Your task to perform on an android device: Search for razer blackwidow on walmart.com, select the first entry, and add it to the cart. Image 0: 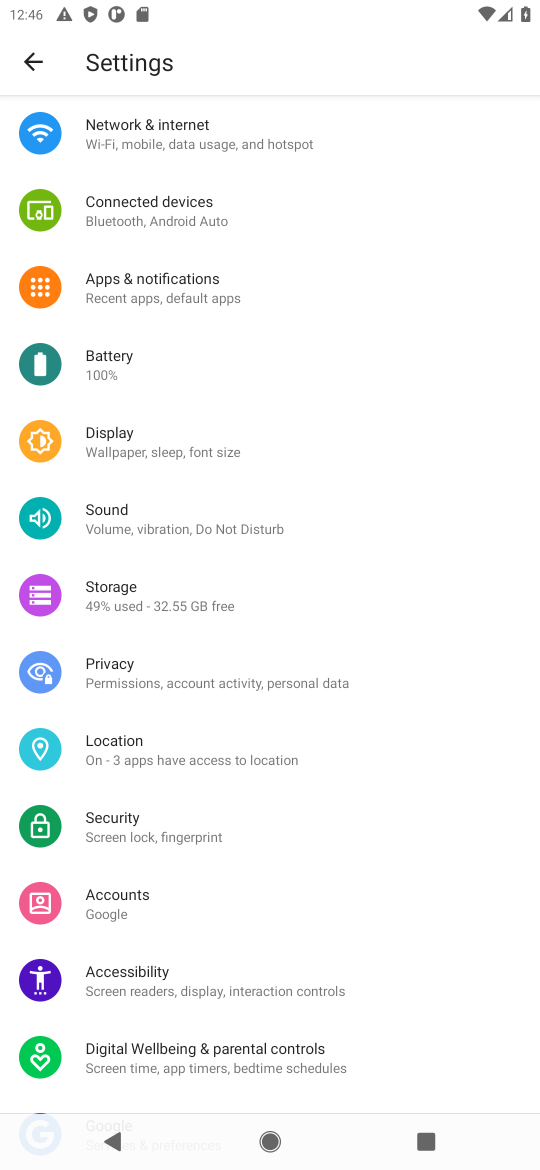
Step 0: click (281, 1136)
Your task to perform on an android device: Search for razer blackwidow on walmart.com, select the first entry, and add it to the cart. Image 1: 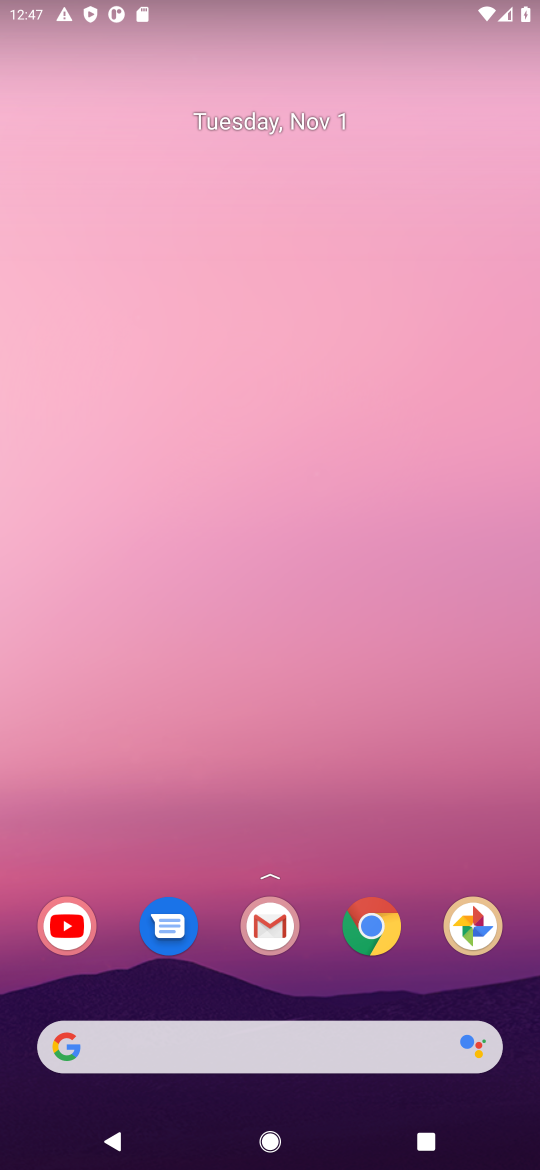
Step 1: click (369, 943)
Your task to perform on an android device: Search for razer blackwidow on walmart.com, select the first entry, and add it to the cart. Image 2: 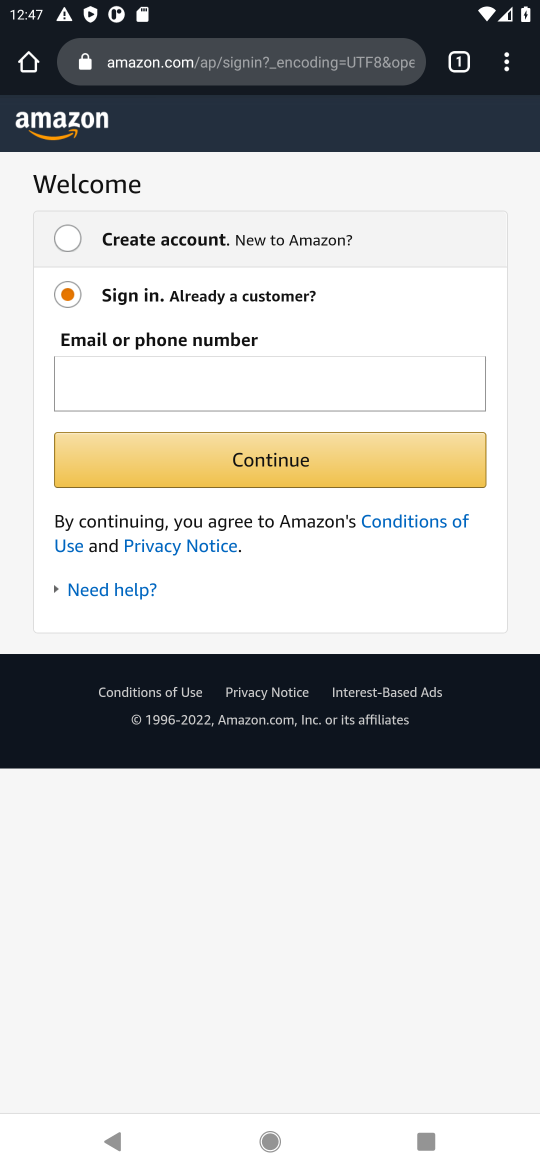
Step 2: click (260, 68)
Your task to perform on an android device: Search for razer blackwidow on walmart.com, select the first entry, and add it to the cart. Image 3: 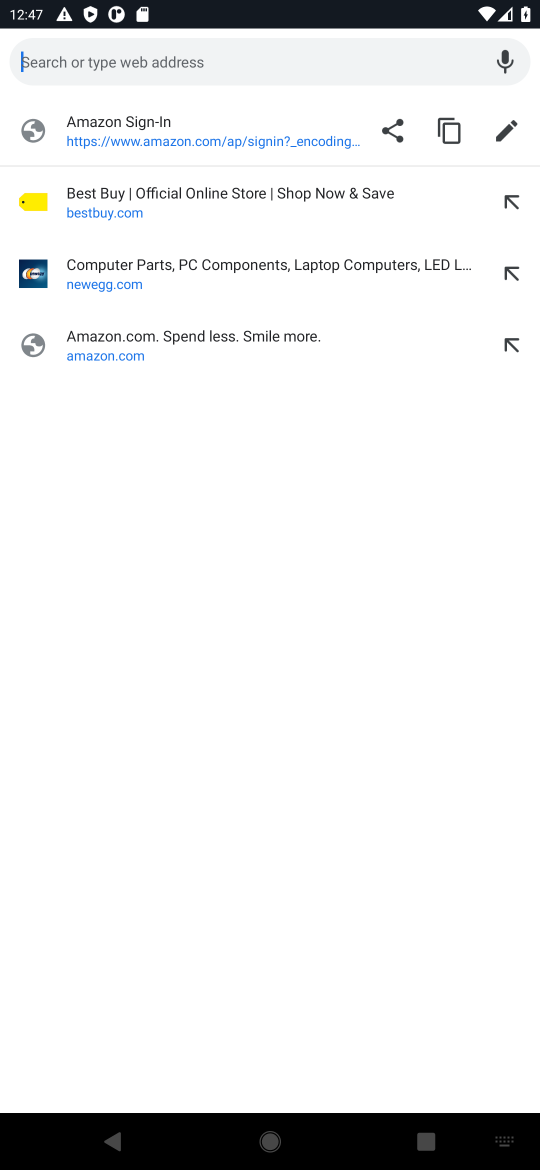
Step 3: type "walmart"
Your task to perform on an android device: Search for razer blackwidow on walmart.com, select the first entry, and add it to the cart. Image 4: 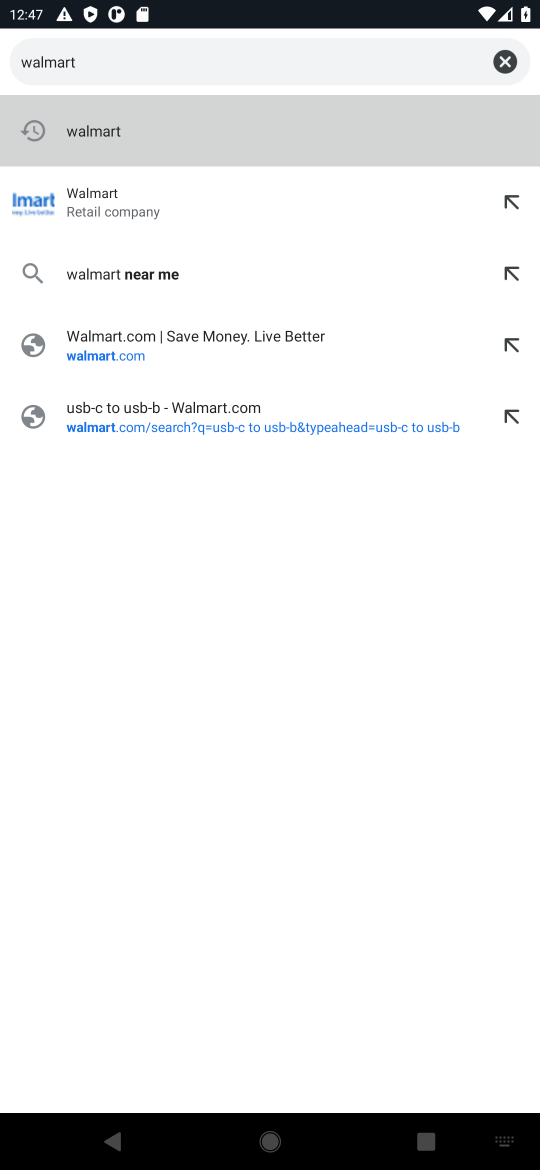
Step 4: click (96, 127)
Your task to perform on an android device: Search for razer blackwidow on walmart.com, select the first entry, and add it to the cart. Image 5: 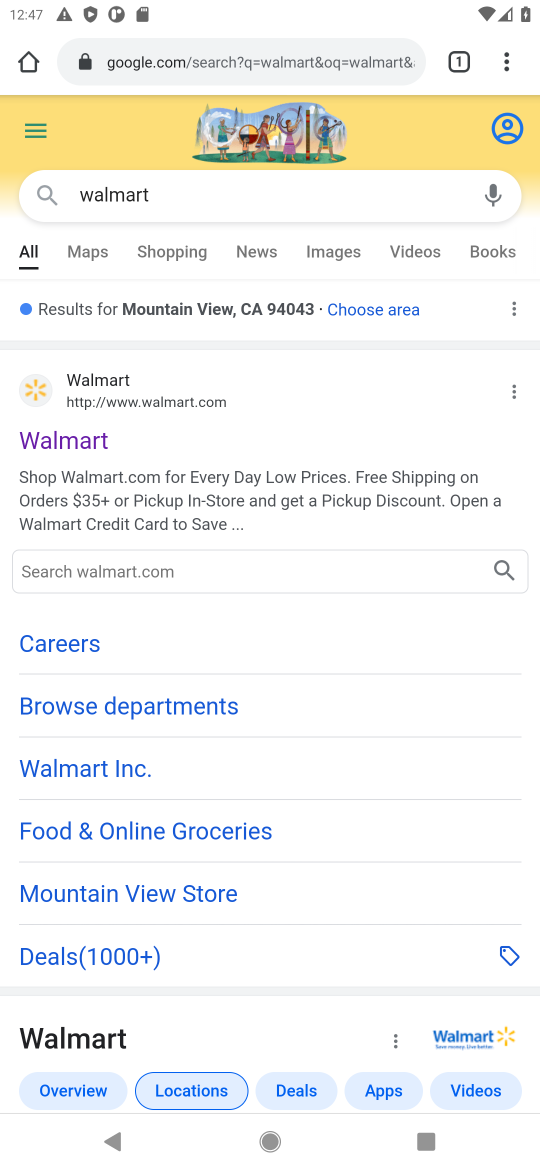
Step 5: click (59, 442)
Your task to perform on an android device: Search for razer blackwidow on walmart.com, select the first entry, and add it to the cart. Image 6: 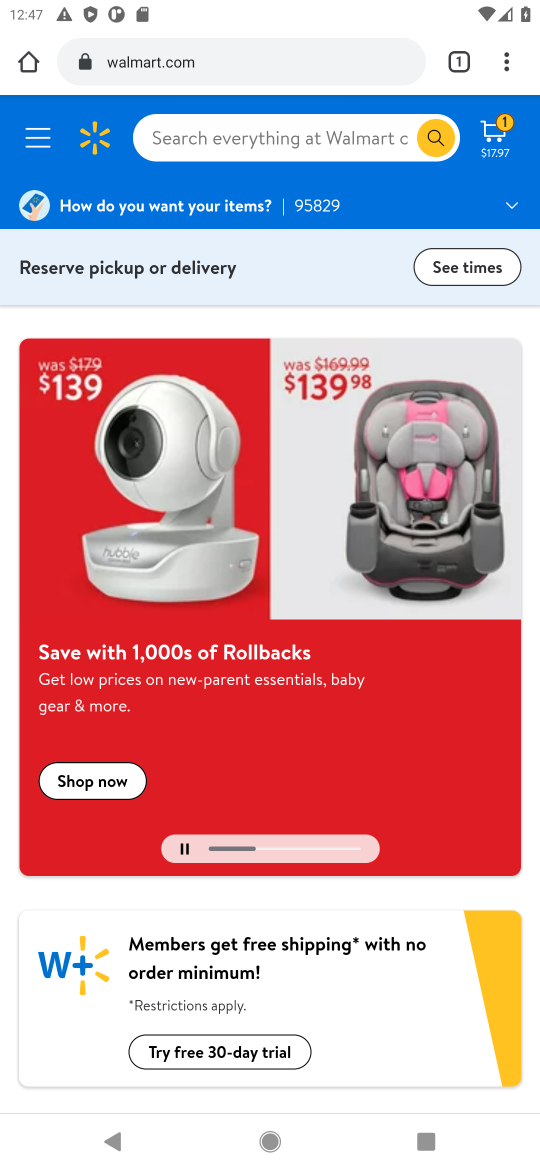
Step 6: click (264, 125)
Your task to perform on an android device: Search for razer blackwidow on walmart.com, select the first entry, and add it to the cart. Image 7: 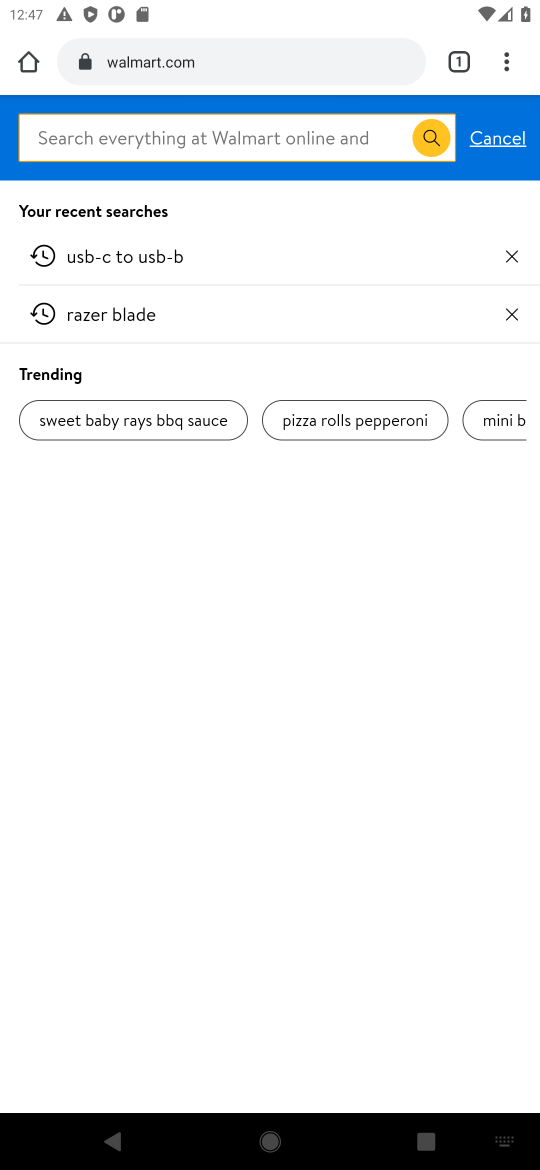
Step 7: click (175, 144)
Your task to perform on an android device: Search for razer blackwidow on walmart.com, select the first entry, and add it to the cart. Image 8: 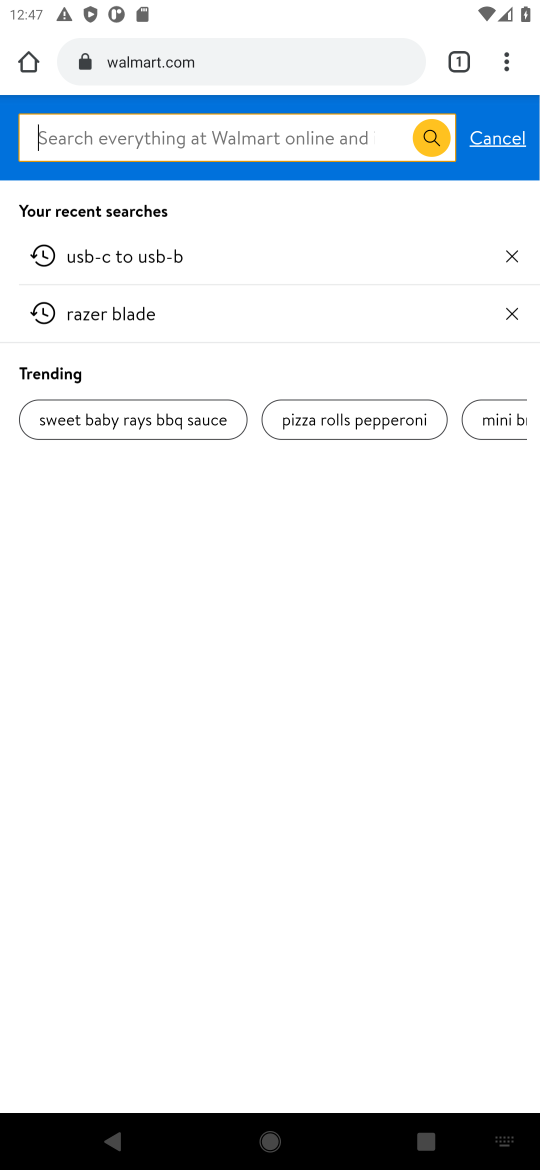
Step 8: type "razer blackwidow "
Your task to perform on an android device: Search for razer blackwidow on walmart.com, select the first entry, and add it to the cart. Image 9: 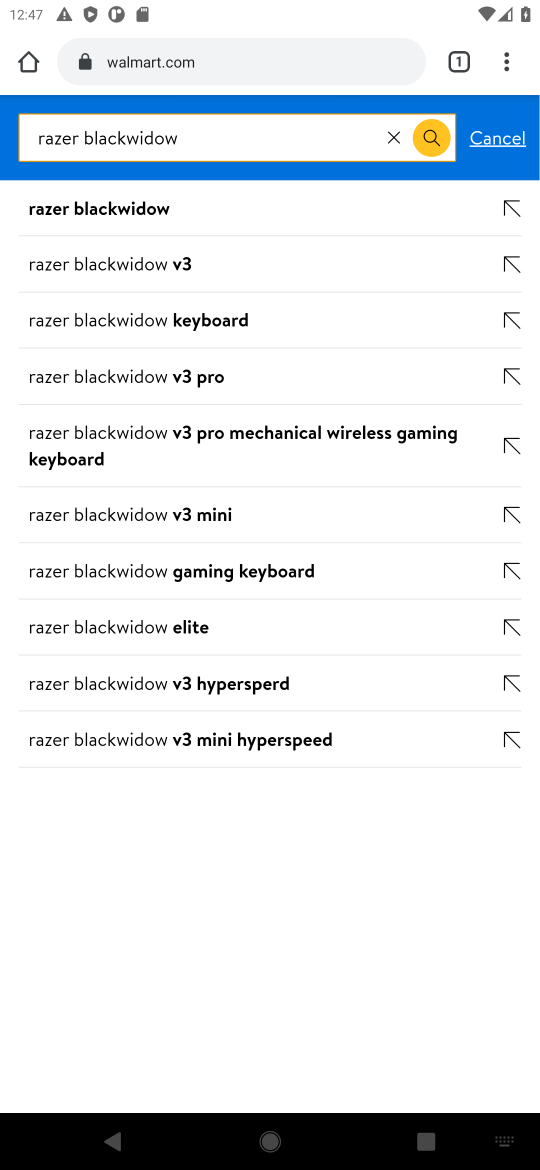
Step 9: click (136, 209)
Your task to perform on an android device: Search for razer blackwidow on walmart.com, select the first entry, and add it to the cart. Image 10: 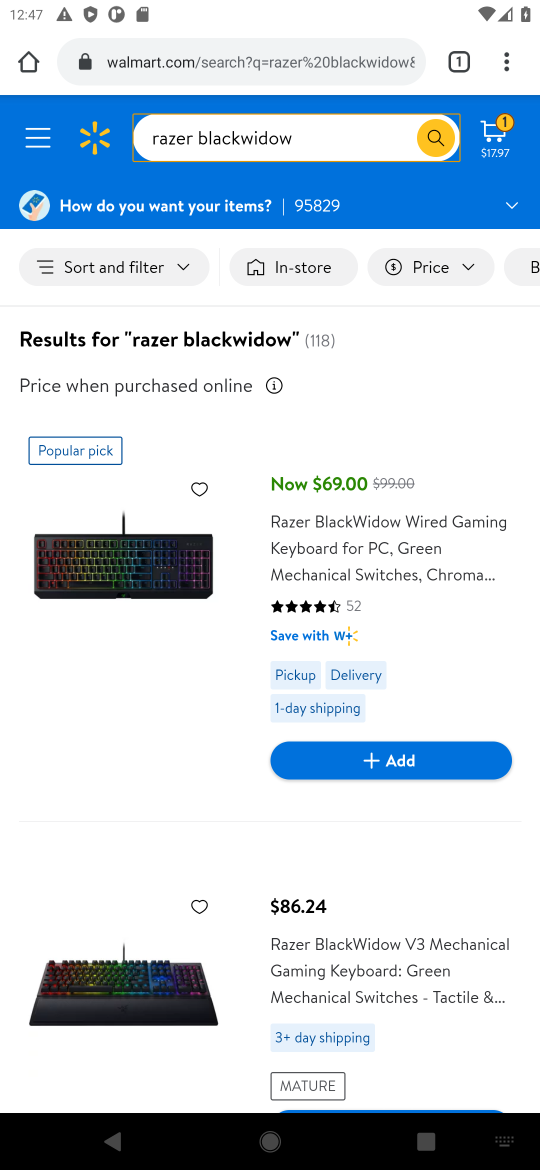
Step 10: click (147, 578)
Your task to perform on an android device: Search for razer blackwidow on walmart.com, select the first entry, and add it to the cart. Image 11: 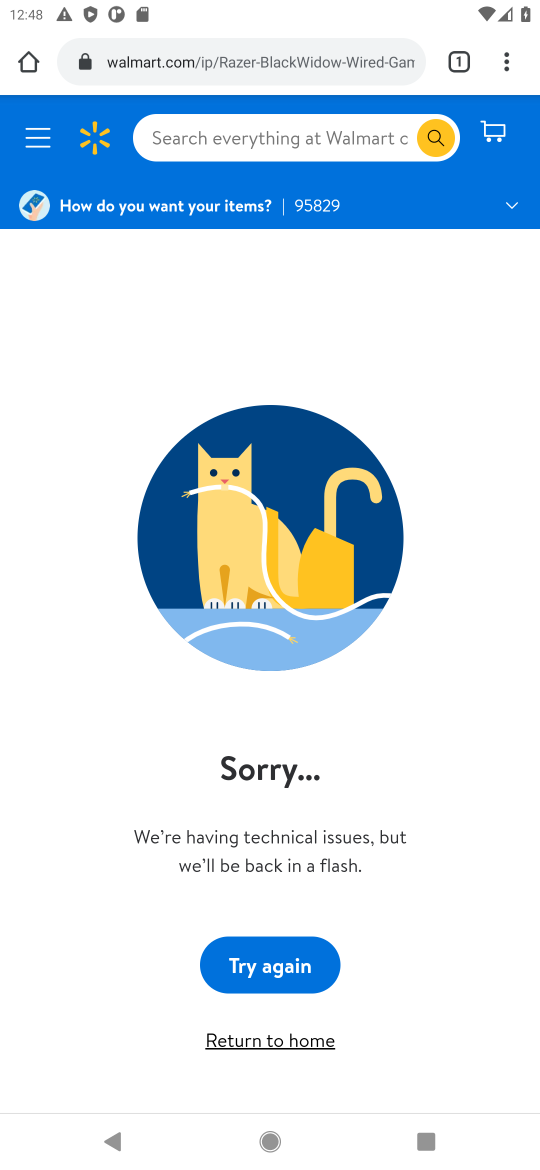
Step 11: click (276, 969)
Your task to perform on an android device: Search for razer blackwidow on walmart.com, select the first entry, and add it to the cart. Image 12: 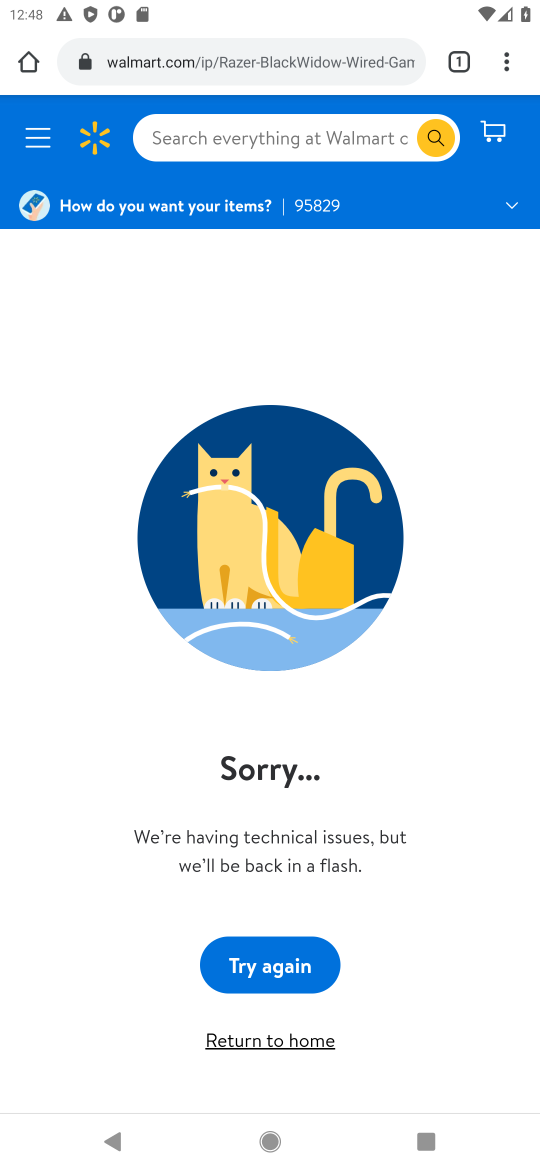
Step 12: click (276, 969)
Your task to perform on an android device: Search for razer blackwidow on walmart.com, select the first entry, and add it to the cart. Image 13: 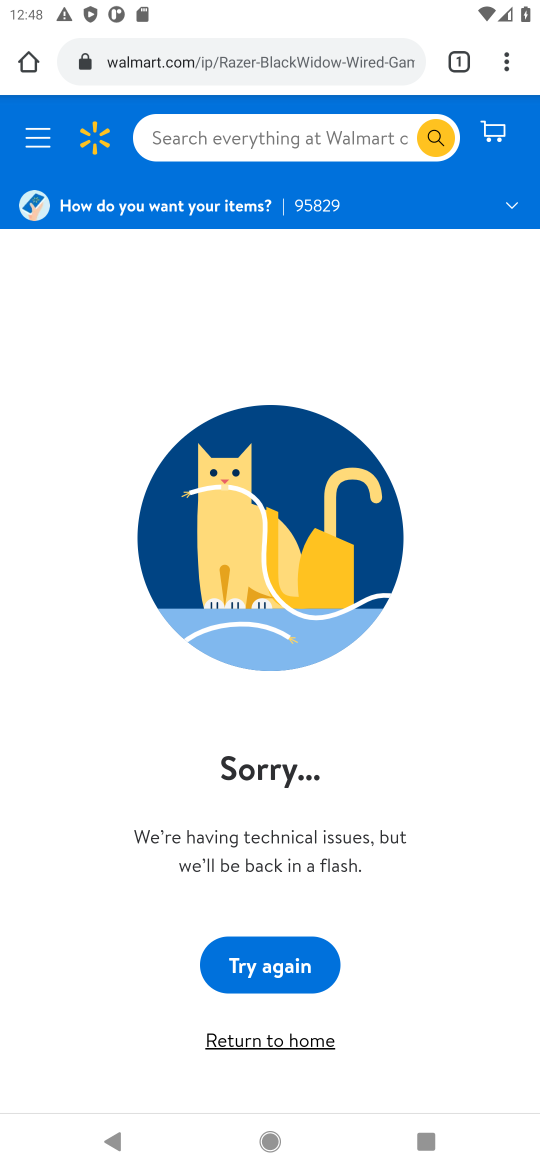
Step 13: click (295, 959)
Your task to perform on an android device: Search for razer blackwidow on walmart.com, select the first entry, and add it to the cart. Image 14: 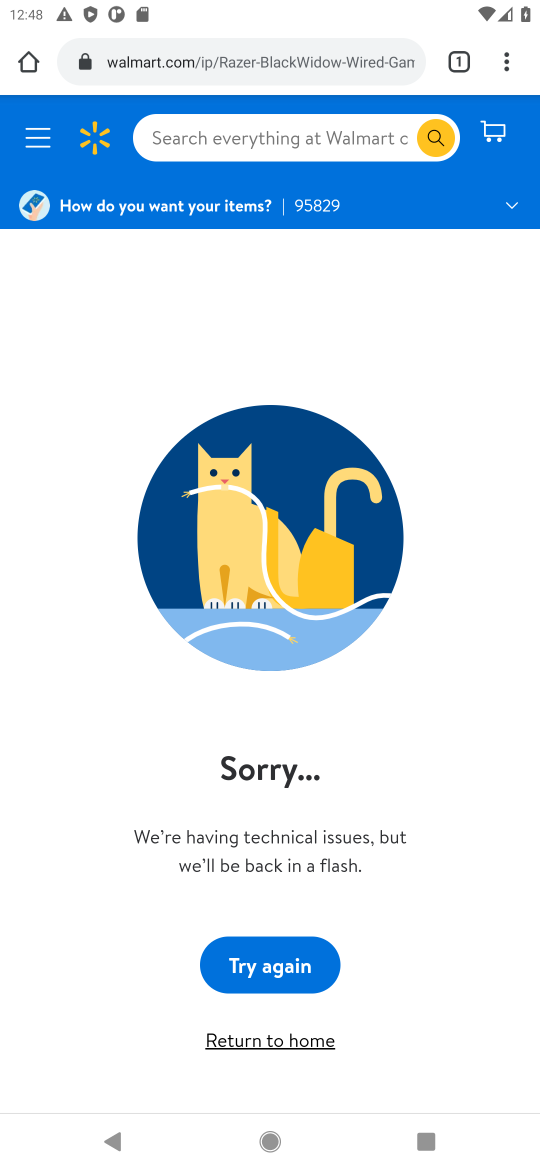
Step 14: click (445, 1081)
Your task to perform on an android device: Search for razer blackwidow on walmart.com, select the first entry, and add it to the cart. Image 15: 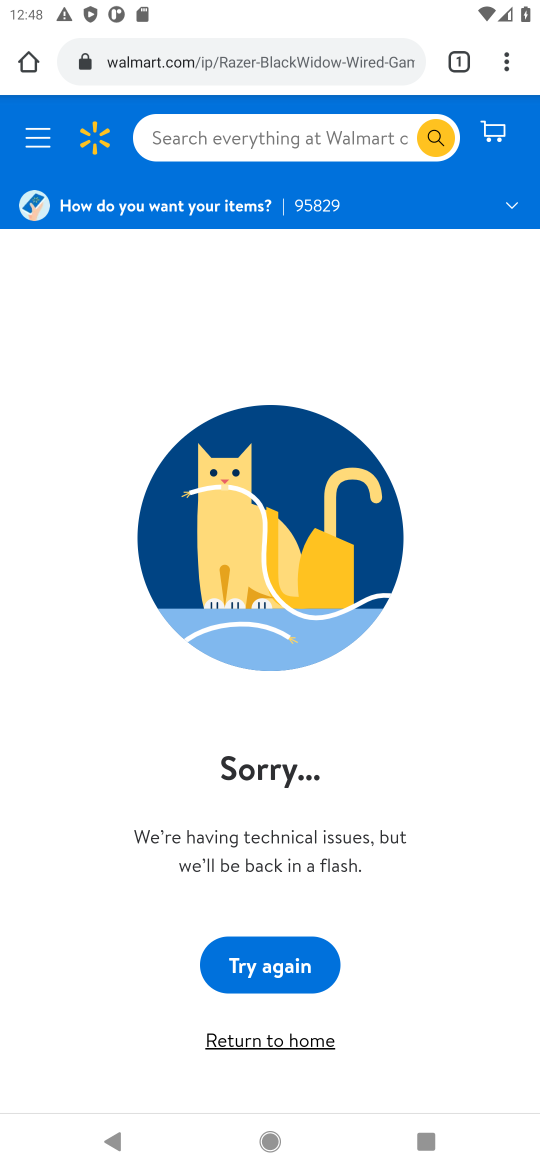
Step 15: click (297, 979)
Your task to perform on an android device: Search for razer blackwidow on walmart.com, select the first entry, and add it to the cart. Image 16: 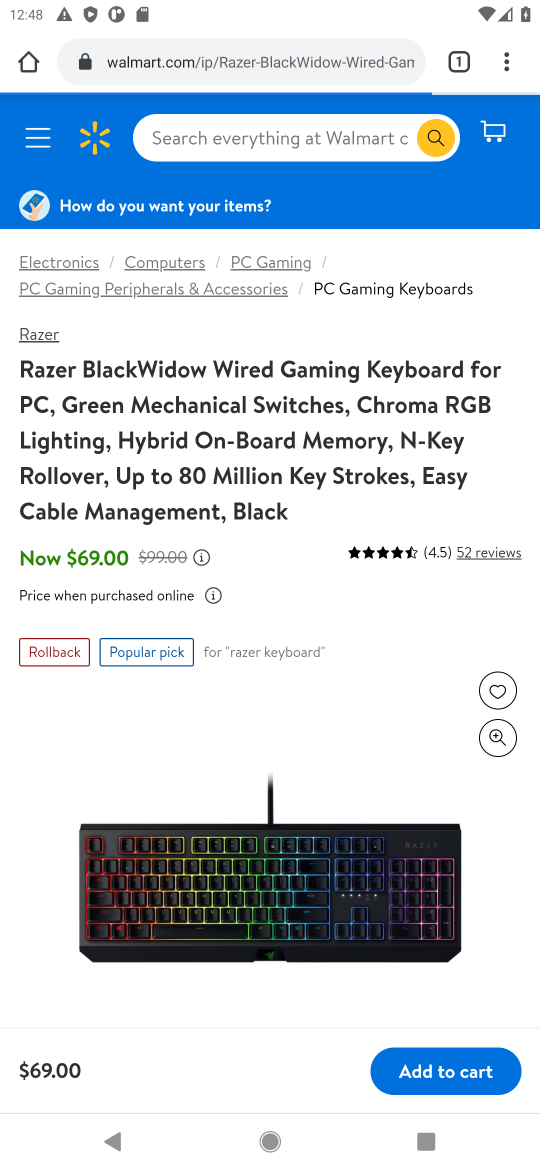
Step 16: click (438, 1070)
Your task to perform on an android device: Search for razer blackwidow on walmart.com, select the first entry, and add it to the cart. Image 17: 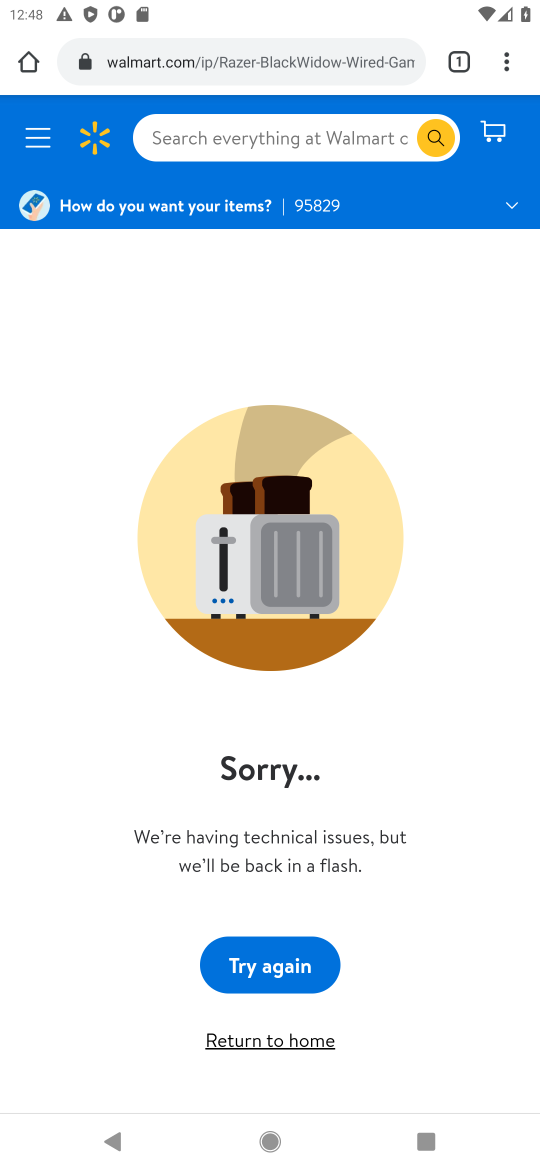
Step 17: click (284, 976)
Your task to perform on an android device: Search for razer blackwidow on walmart.com, select the first entry, and add it to the cart. Image 18: 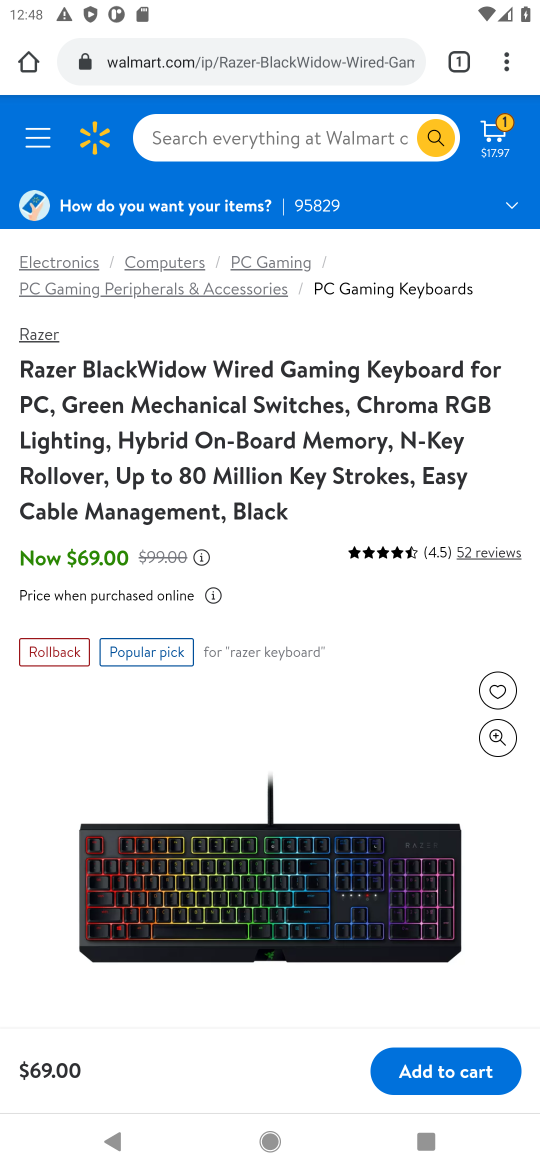
Step 18: click (420, 1068)
Your task to perform on an android device: Search for razer blackwidow on walmart.com, select the first entry, and add it to the cart. Image 19: 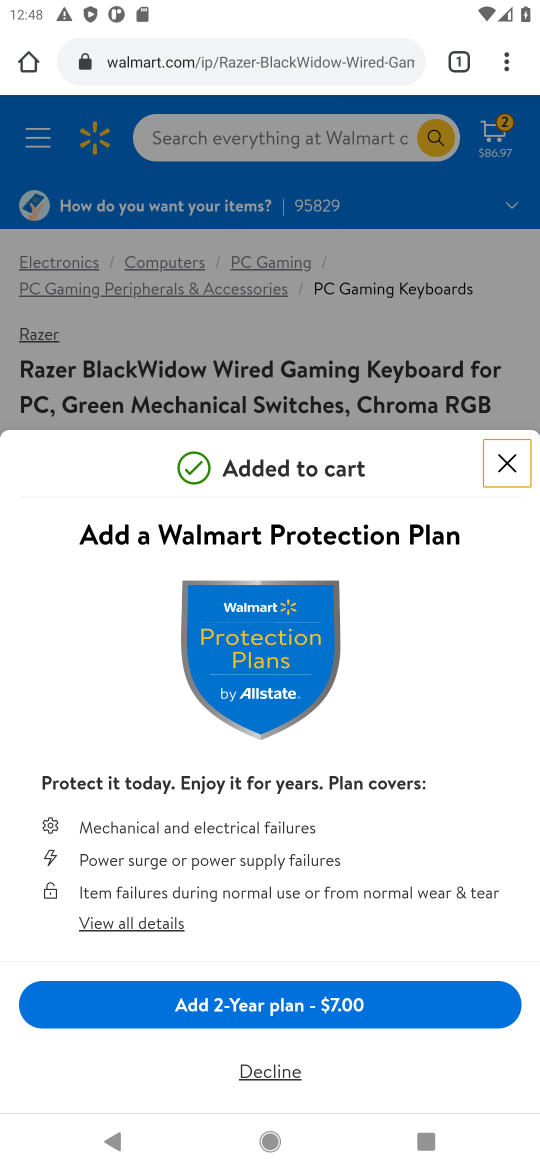
Step 19: click (265, 1071)
Your task to perform on an android device: Search for razer blackwidow on walmart.com, select the first entry, and add it to the cart. Image 20: 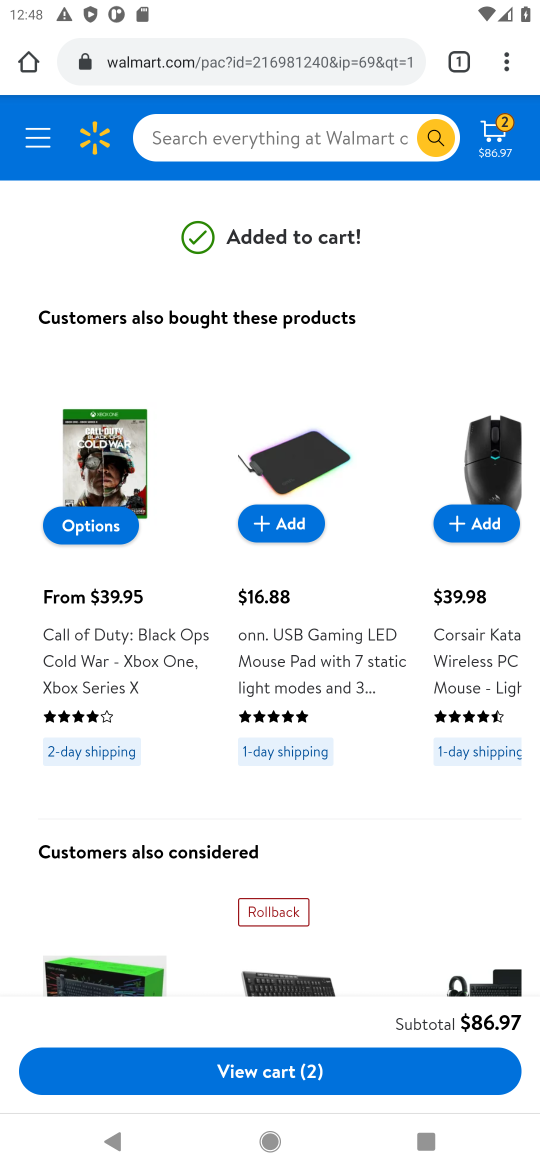
Step 20: task complete